Your task to perform on an android device: delete browsing data in the chrome app Image 0: 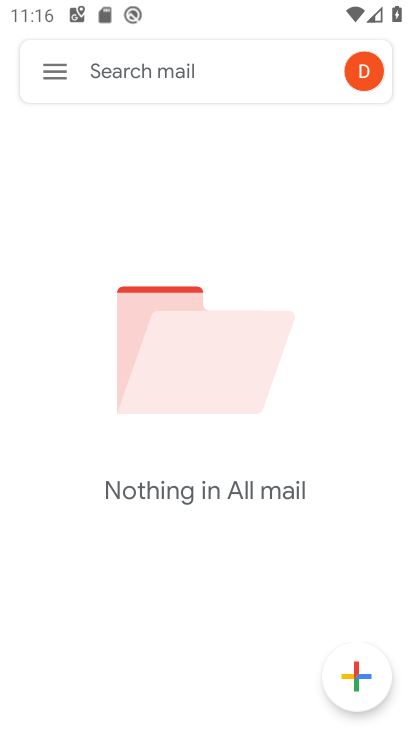
Step 0: press home button
Your task to perform on an android device: delete browsing data in the chrome app Image 1: 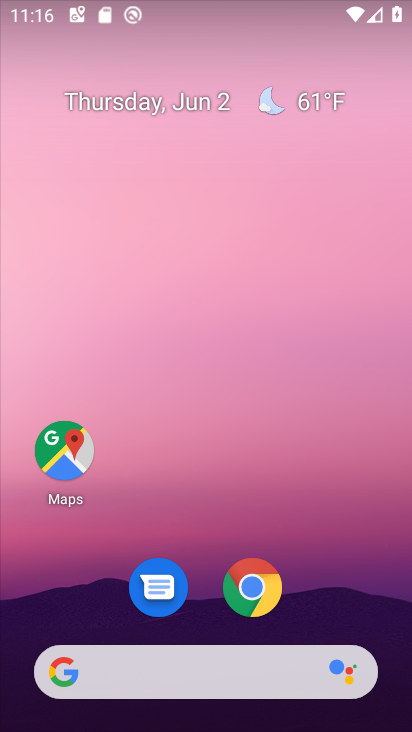
Step 1: click (255, 586)
Your task to perform on an android device: delete browsing data in the chrome app Image 2: 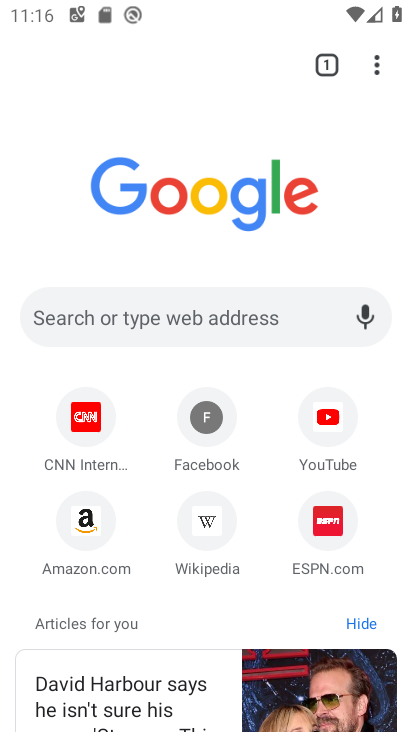
Step 2: click (373, 62)
Your task to perform on an android device: delete browsing data in the chrome app Image 3: 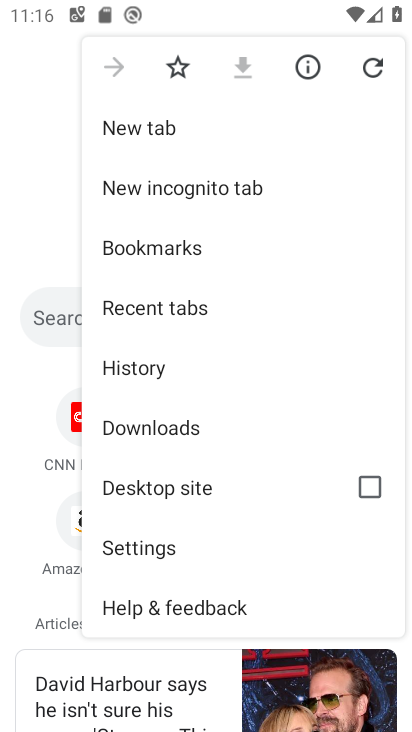
Step 3: click (165, 372)
Your task to perform on an android device: delete browsing data in the chrome app Image 4: 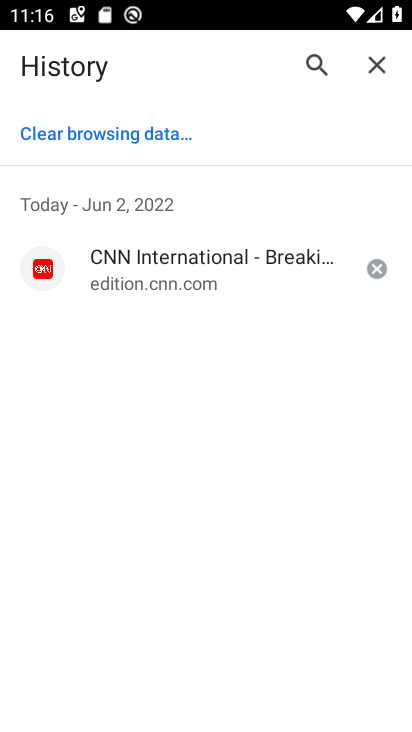
Step 4: click (136, 130)
Your task to perform on an android device: delete browsing data in the chrome app Image 5: 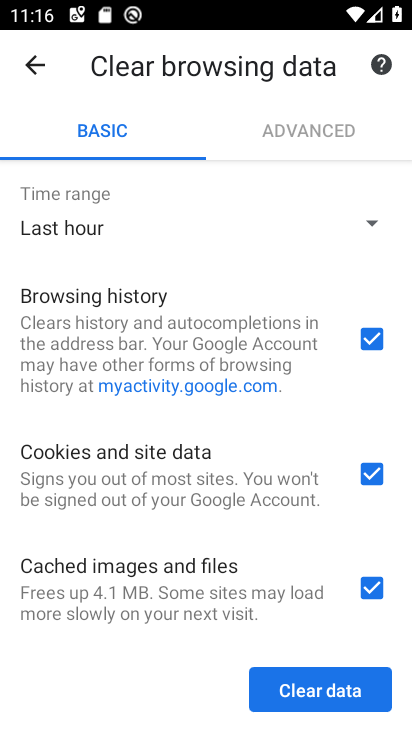
Step 5: click (342, 691)
Your task to perform on an android device: delete browsing data in the chrome app Image 6: 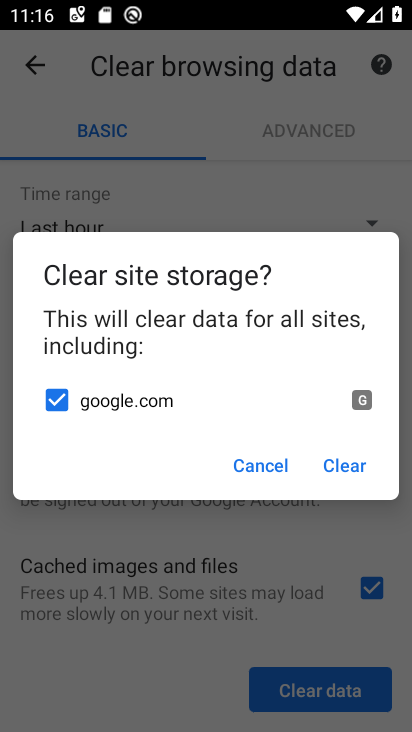
Step 6: click (358, 462)
Your task to perform on an android device: delete browsing data in the chrome app Image 7: 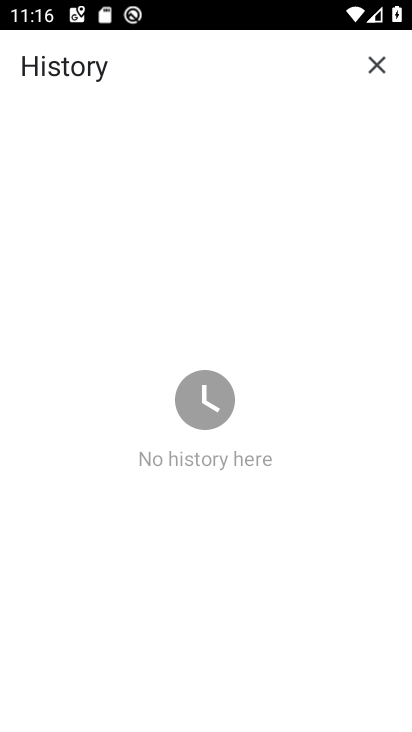
Step 7: task complete